Your task to perform on an android device: change notifications settings Image 0: 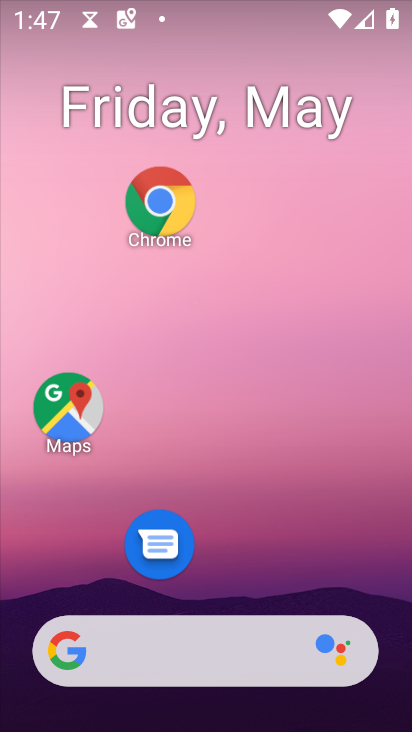
Step 0: drag from (309, 590) to (249, 140)
Your task to perform on an android device: change notifications settings Image 1: 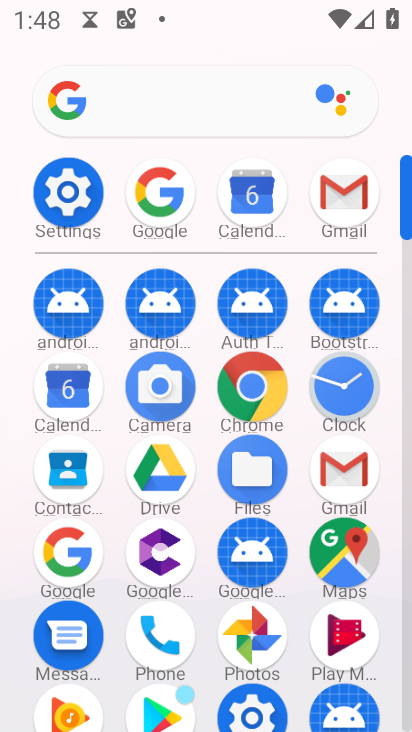
Step 1: click (87, 216)
Your task to perform on an android device: change notifications settings Image 2: 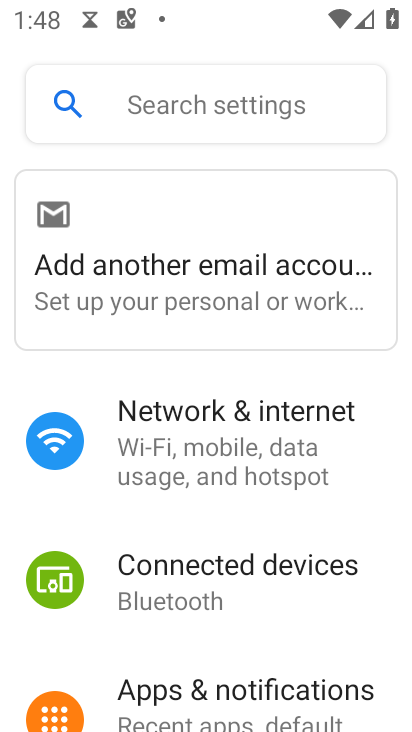
Step 2: drag from (207, 531) to (208, 253)
Your task to perform on an android device: change notifications settings Image 3: 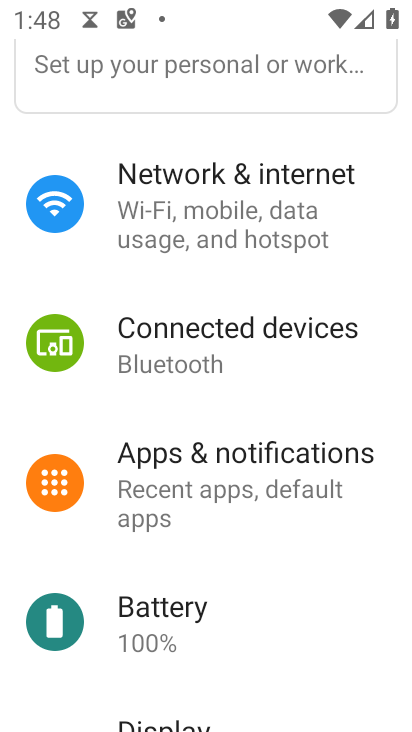
Step 3: click (212, 490)
Your task to perform on an android device: change notifications settings Image 4: 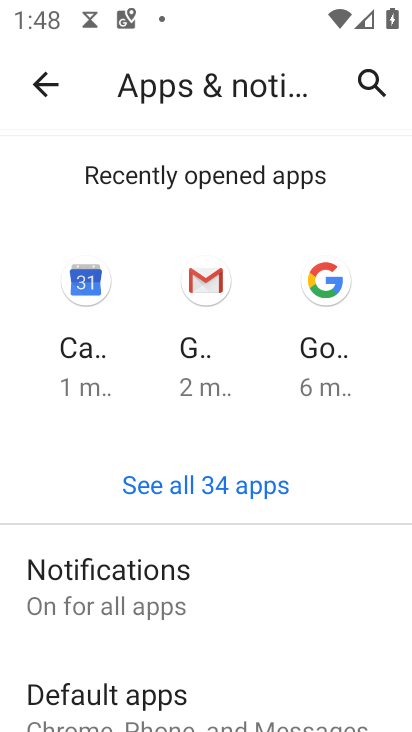
Step 4: drag from (161, 636) to (152, 404)
Your task to perform on an android device: change notifications settings Image 5: 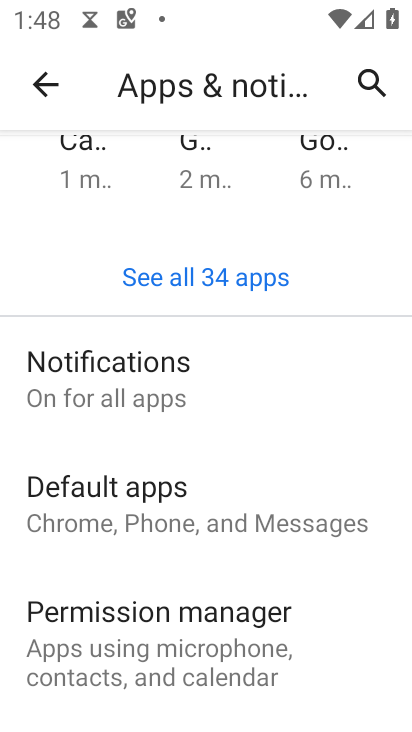
Step 5: click (144, 403)
Your task to perform on an android device: change notifications settings Image 6: 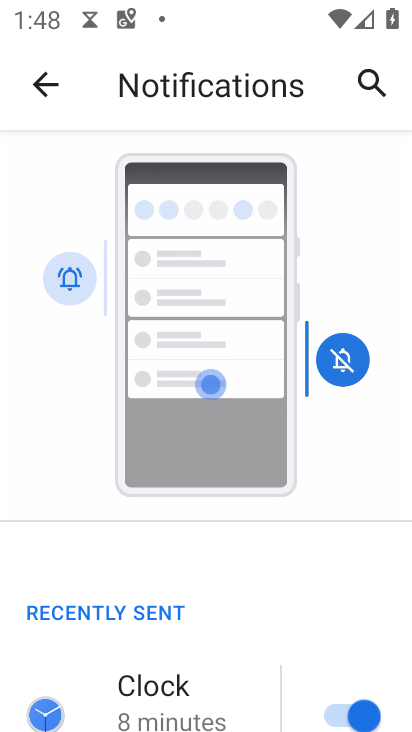
Step 6: drag from (155, 646) to (143, 251)
Your task to perform on an android device: change notifications settings Image 7: 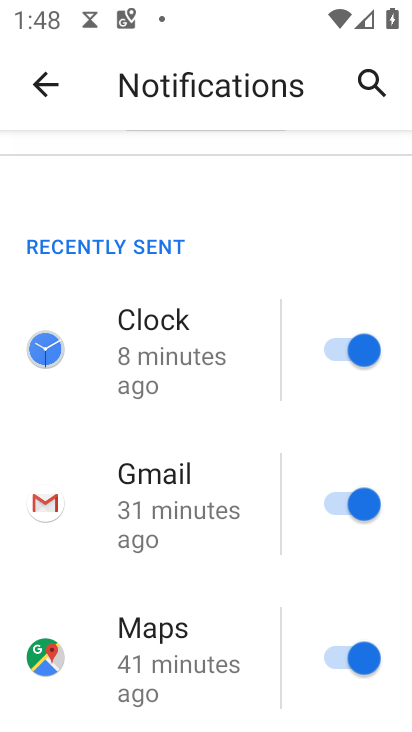
Step 7: click (360, 513)
Your task to perform on an android device: change notifications settings Image 8: 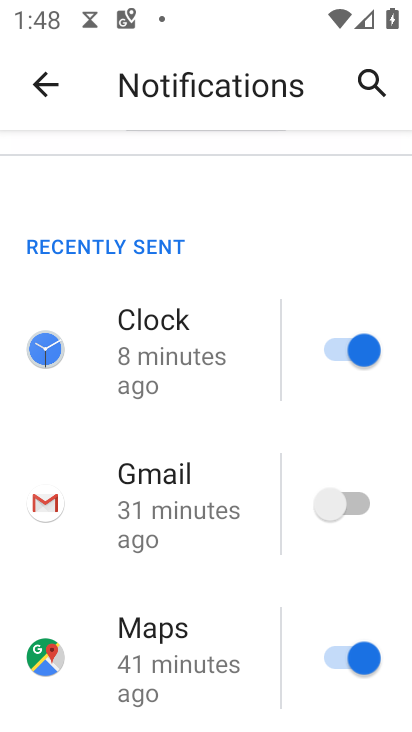
Step 8: task complete